Your task to perform on an android device: empty trash in the gmail app Image 0: 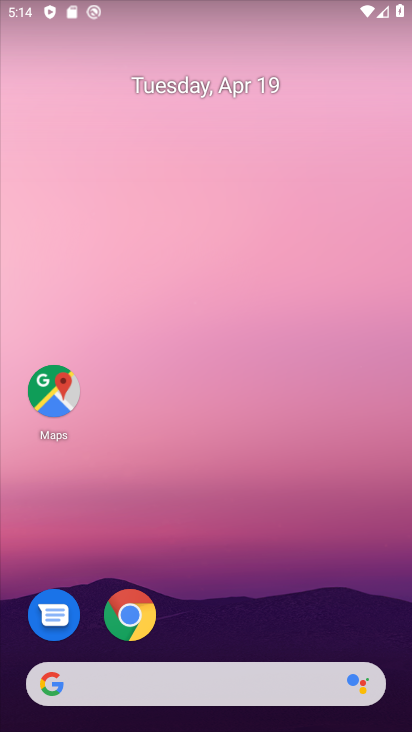
Step 0: drag from (185, 723) to (176, 102)
Your task to perform on an android device: empty trash in the gmail app Image 1: 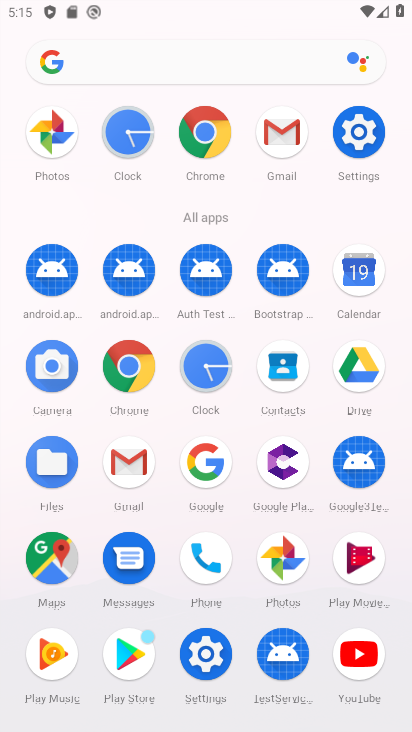
Step 1: click (128, 461)
Your task to perform on an android device: empty trash in the gmail app Image 2: 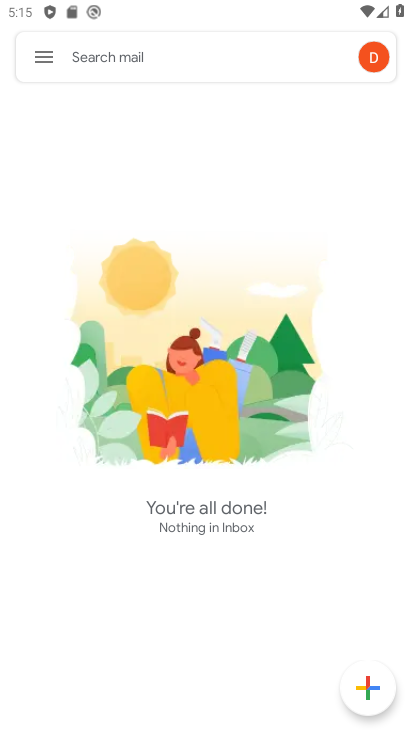
Step 2: click (45, 56)
Your task to perform on an android device: empty trash in the gmail app Image 3: 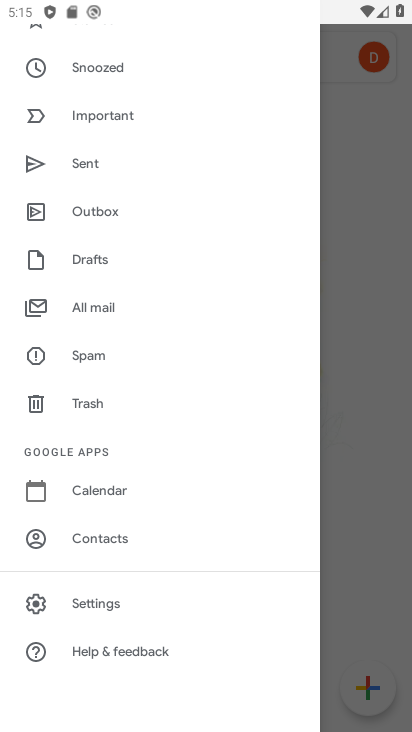
Step 3: click (86, 399)
Your task to perform on an android device: empty trash in the gmail app Image 4: 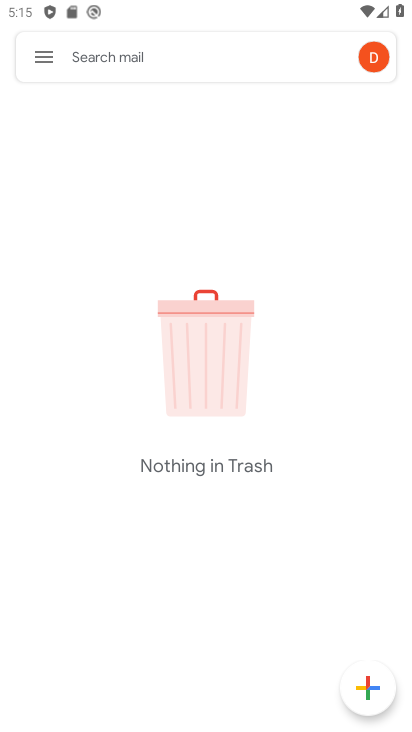
Step 4: task complete